Your task to perform on an android device: Search for the best gaming monitor on Best Buy Image 0: 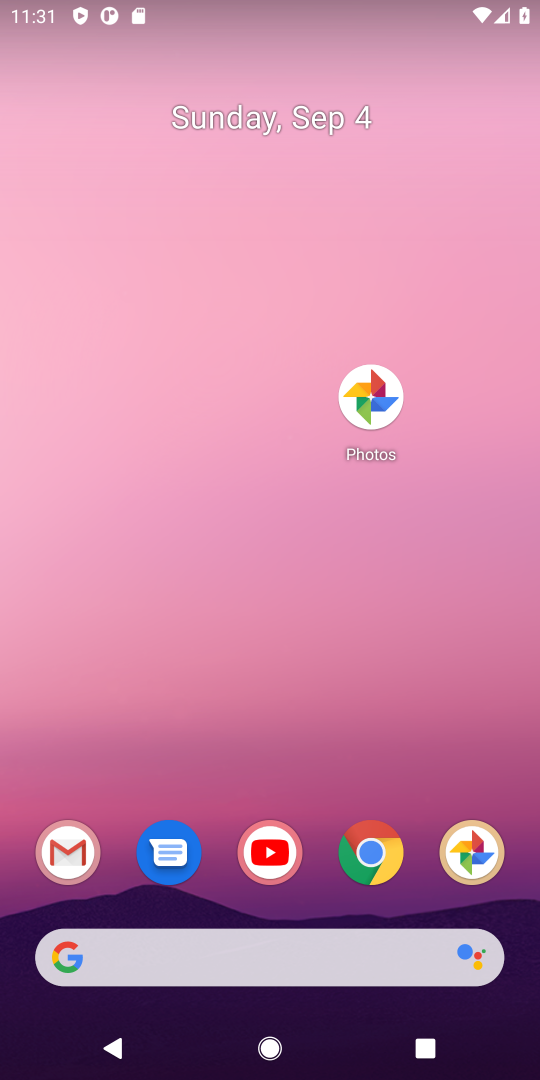
Step 0: drag from (425, 904) to (80, 45)
Your task to perform on an android device: Search for the best gaming monitor on Best Buy Image 1: 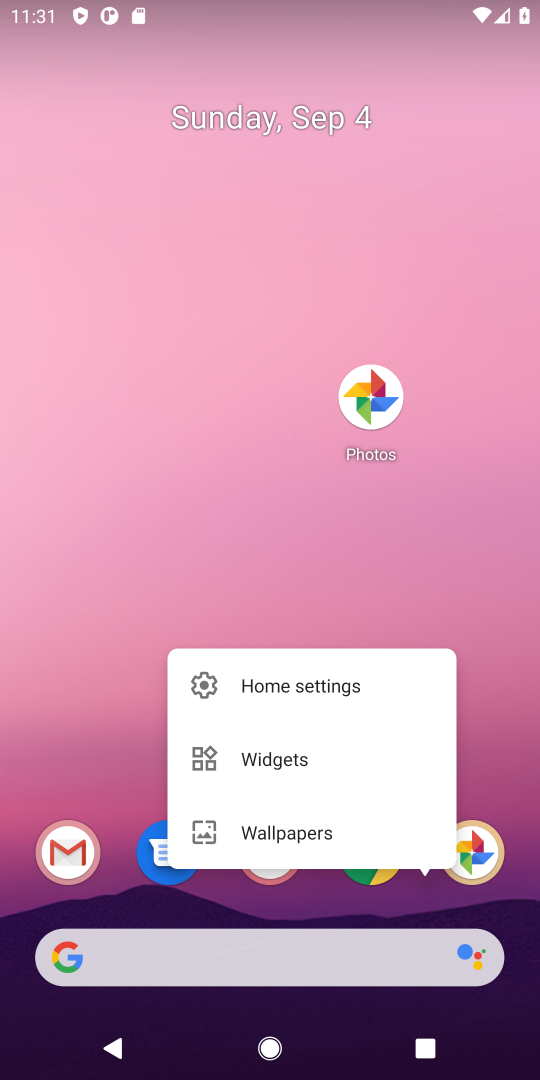
Step 1: click (143, 422)
Your task to perform on an android device: Search for the best gaming monitor on Best Buy Image 2: 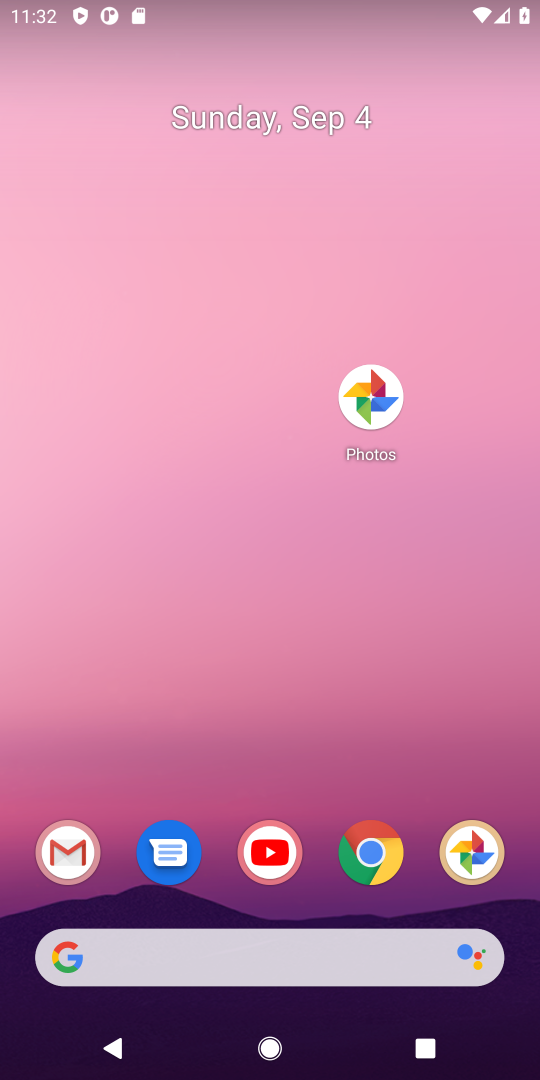
Step 2: drag from (242, 334) to (131, 47)
Your task to perform on an android device: Search for the best gaming monitor on Best Buy Image 3: 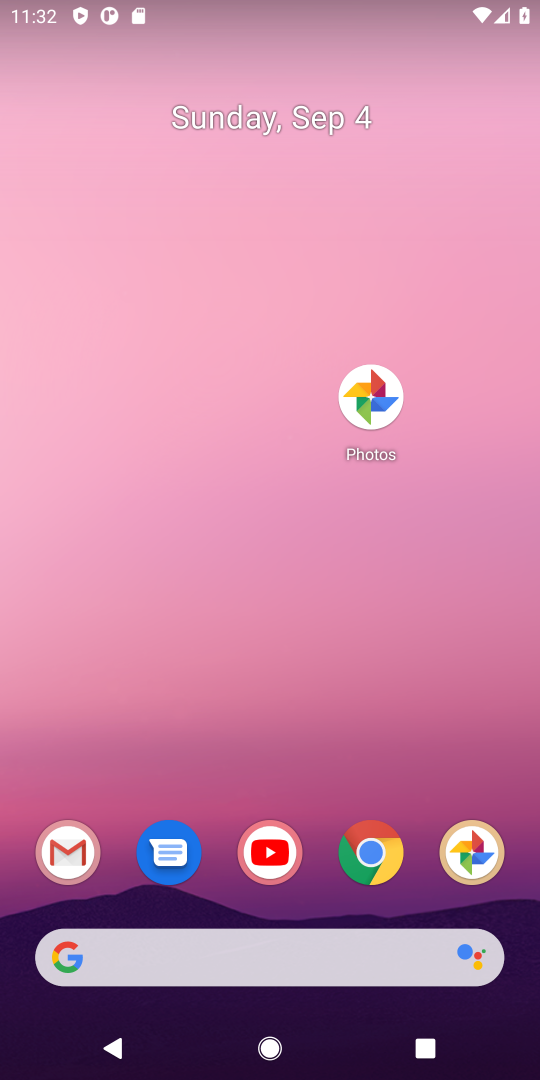
Step 3: drag from (435, 911) to (199, 73)
Your task to perform on an android device: Search for the best gaming monitor on Best Buy Image 4: 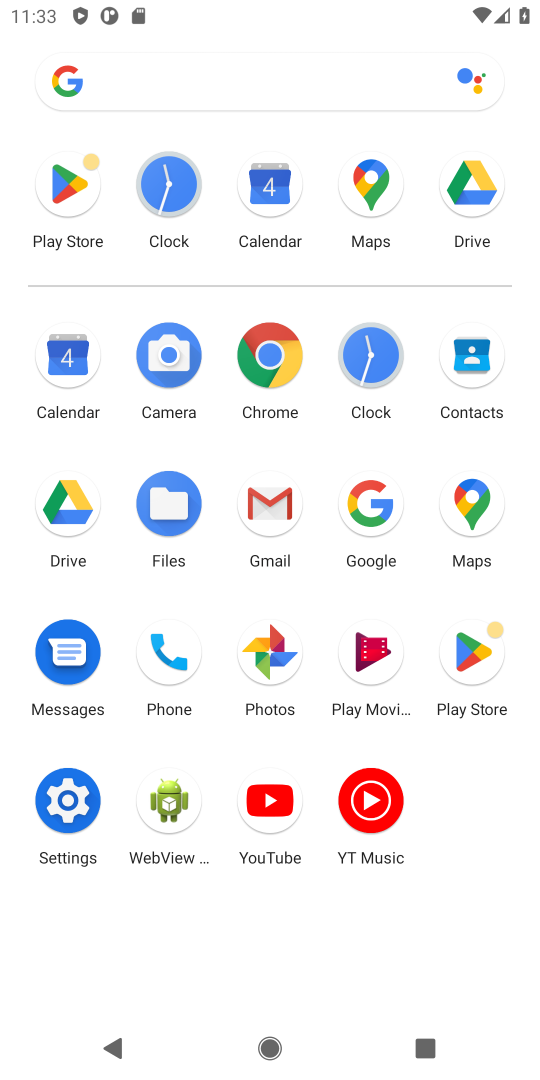
Step 4: click (370, 520)
Your task to perform on an android device: Search for the best gaming monitor on Best Buy Image 5: 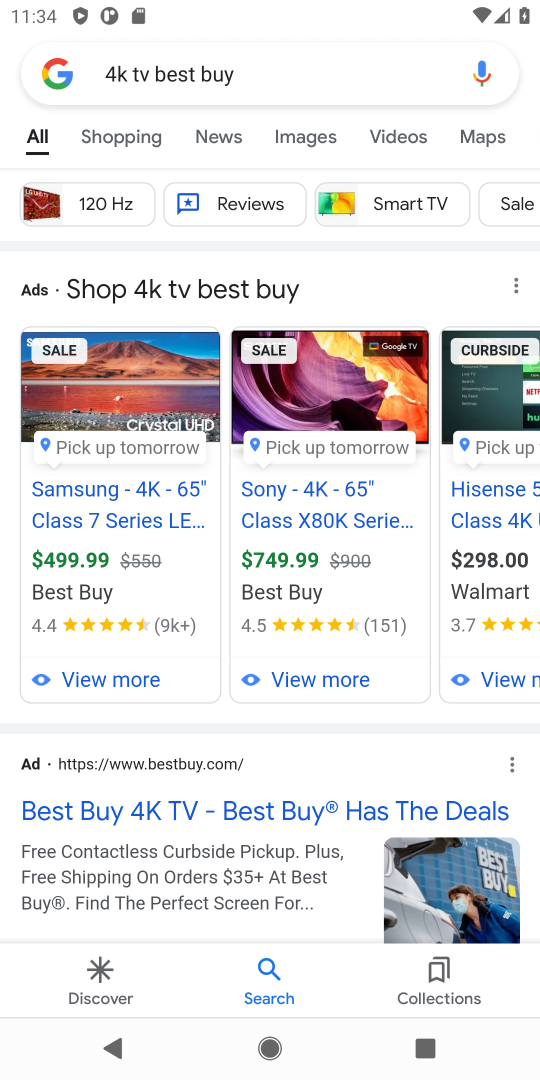
Step 5: press back button
Your task to perform on an android device: Search for the best gaming monitor on Best Buy Image 6: 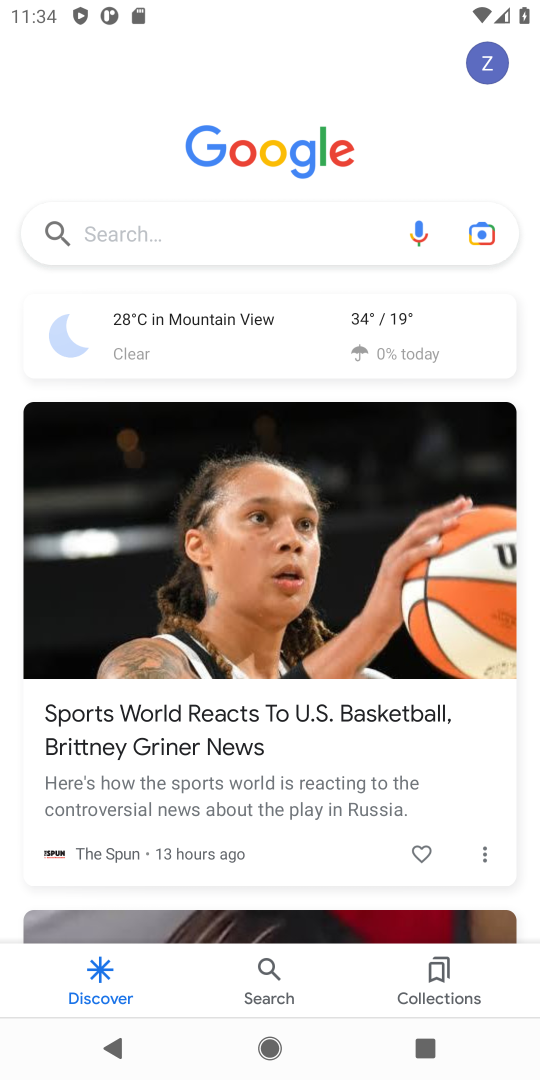
Step 6: click (167, 236)
Your task to perform on an android device: Search for the best gaming monitor on Best Buy Image 7: 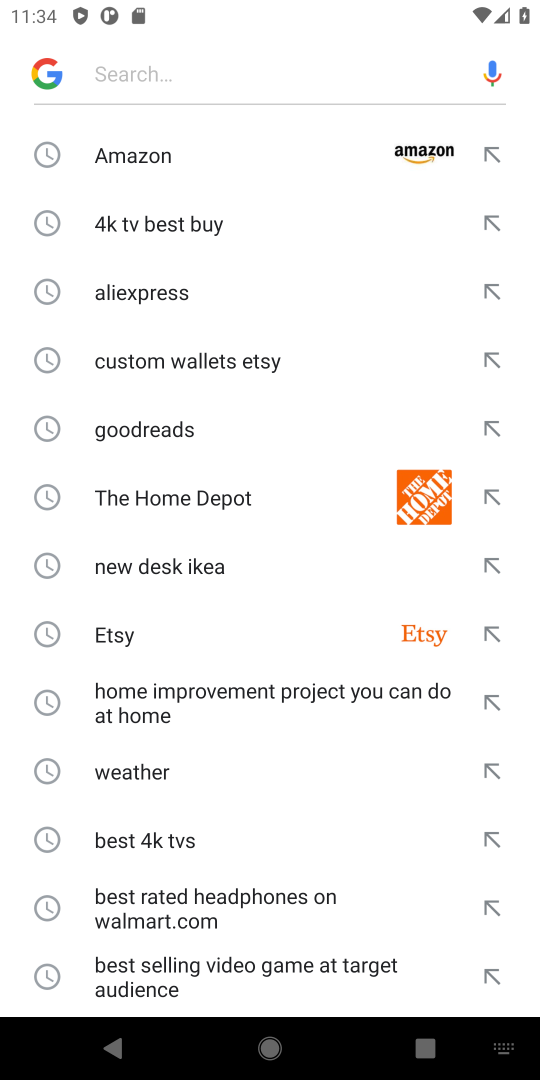
Step 7: type "best gaming monitor on Best Buy"
Your task to perform on an android device: Search for the best gaming monitor on Best Buy Image 8: 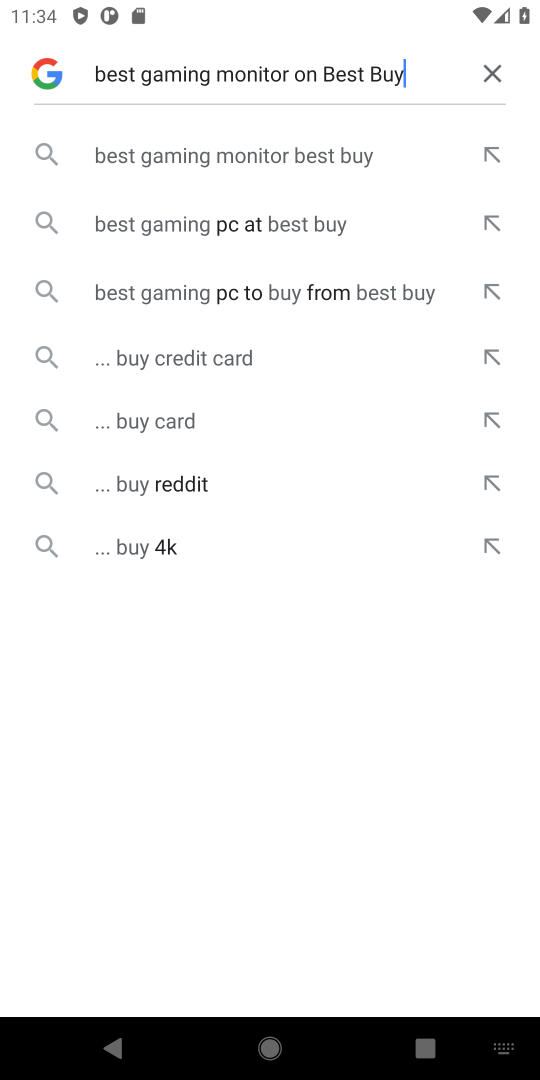
Step 8: click (240, 169)
Your task to perform on an android device: Search for the best gaming monitor on Best Buy Image 9: 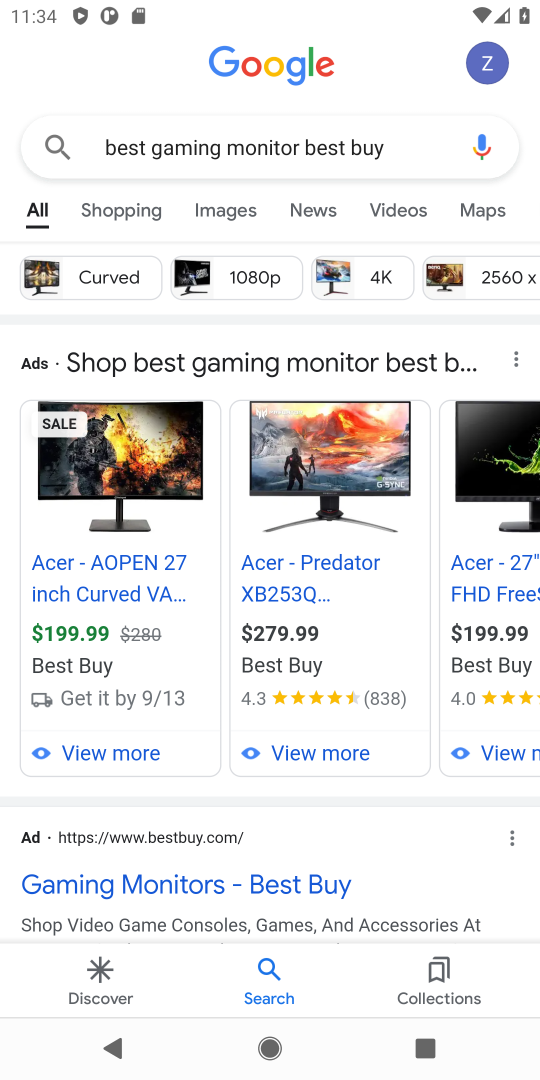
Step 9: task complete